Your task to perform on an android device: Go to wifi settings Image 0: 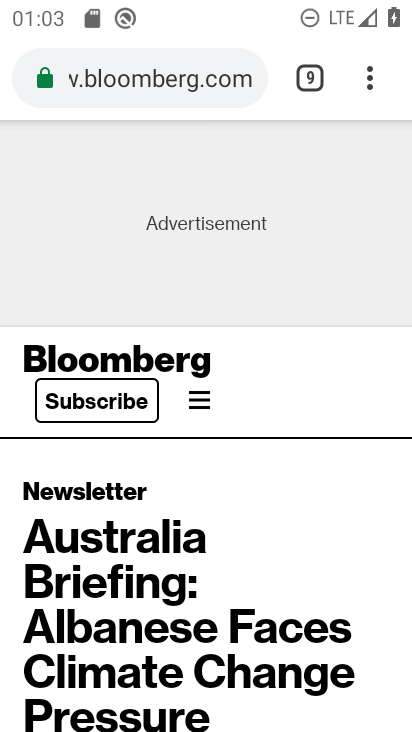
Step 0: press home button
Your task to perform on an android device: Go to wifi settings Image 1: 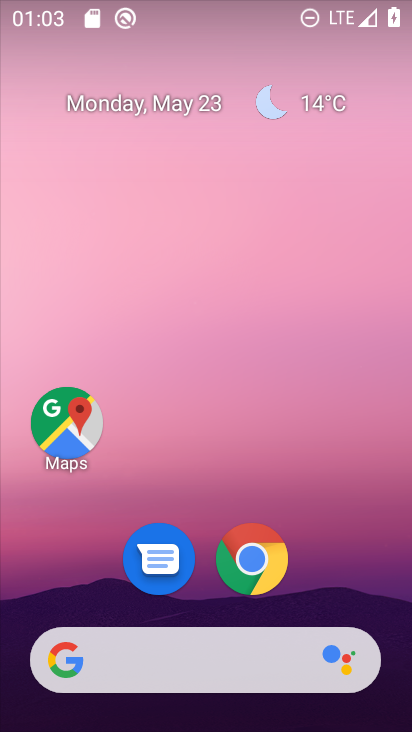
Step 1: drag from (323, 614) to (318, 0)
Your task to perform on an android device: Go to wifi settings Image 2: 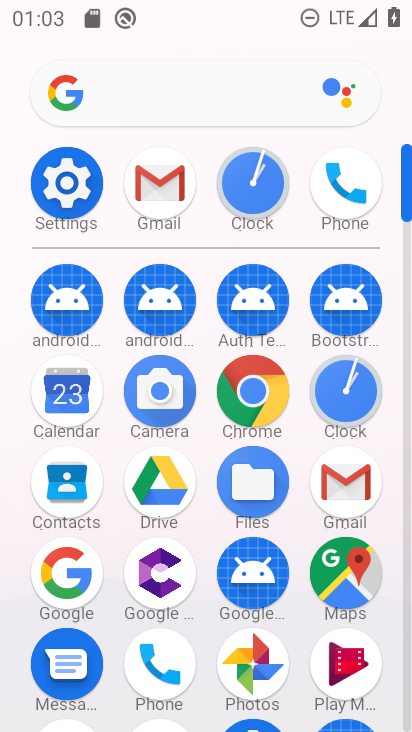
Step 2: click (71, 187)
Your task to perform on an android device: Go to wifi settings Image 3: 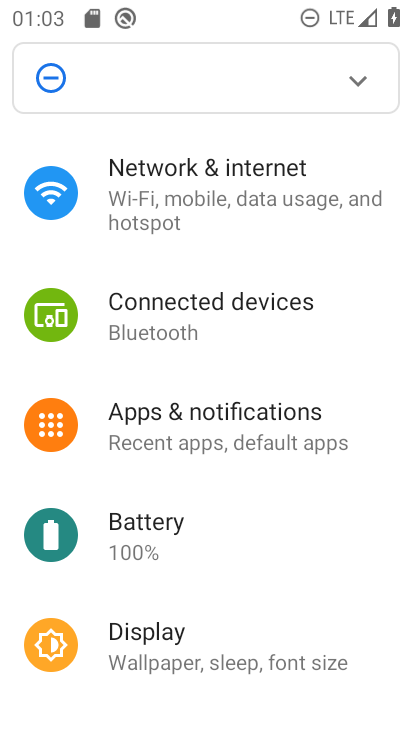
Step 3: click (221, 201)
Your task to perform on an android device: Go to wifi settings Image 4: 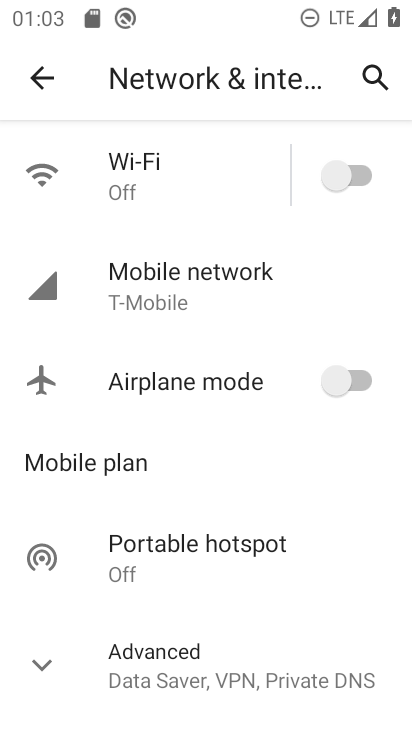
Step 4: click (111, 180)
Your task to perform on an android device: Go to wifi settings Image 5: 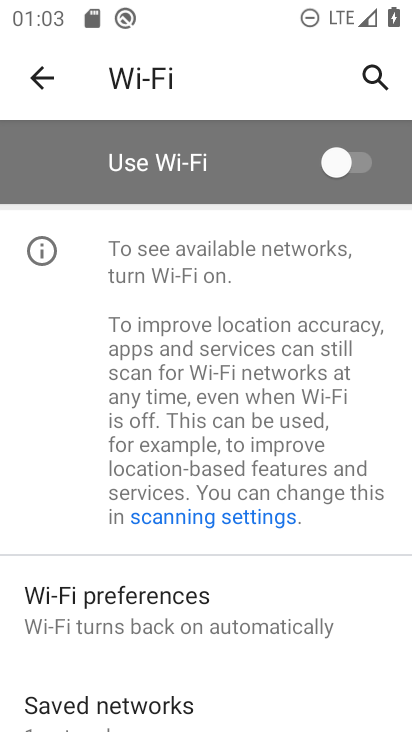
Step 5: task complete